Your task to perform on an android device: set the stopwatch Image 0: 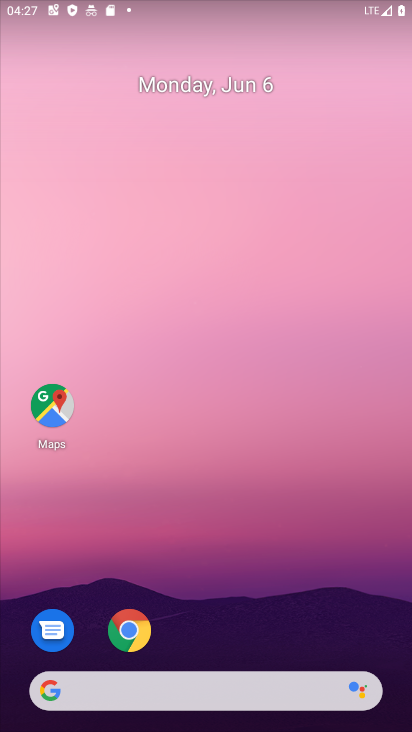
Step 0: drag from (296, 528) to (164, 118)
Your task to perform on an android device: set the stopwatch Image 1: 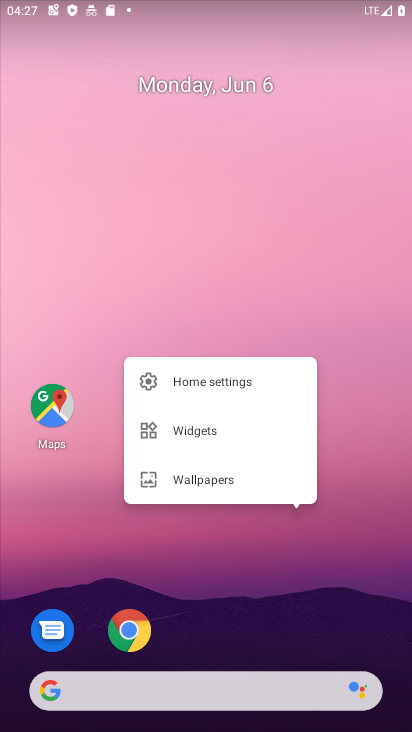
Step 1: click (204, 218)
Your task to perform on an android device: set the stopwatch Image 2: 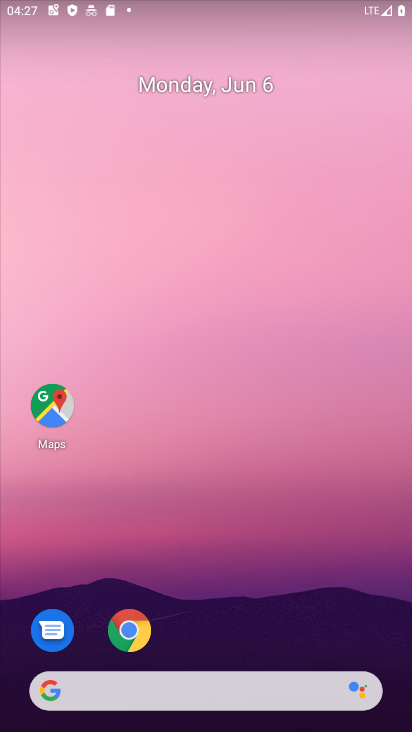
Step 2: drag from (305, 625) to (247, 89)
Your task to perform on an android device: set the stopwatch Image 3: 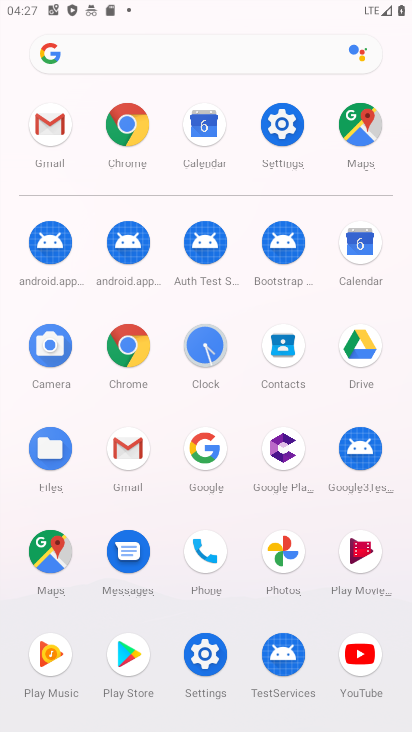
Step 3: click (213, 342)
Your task to perform on an android device: set the stopwatch Image 4: 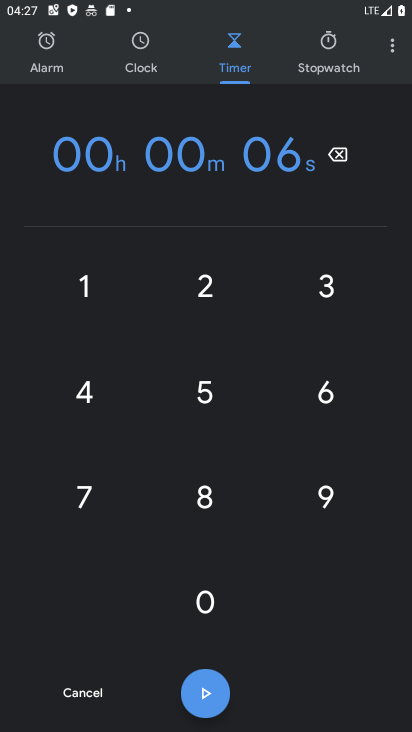
Step 4: click (339, 71)
Your task to perform on an android device: set the stopwatch Image 5: 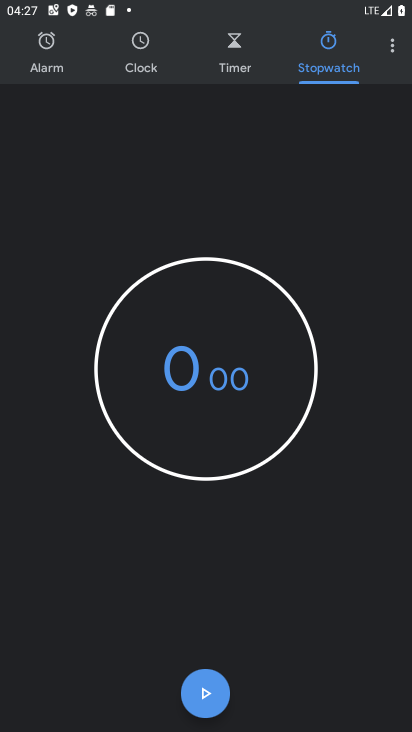
Step 5: click (208, 688)
Your task to perform on an android device: set the stopwatch Image 6: 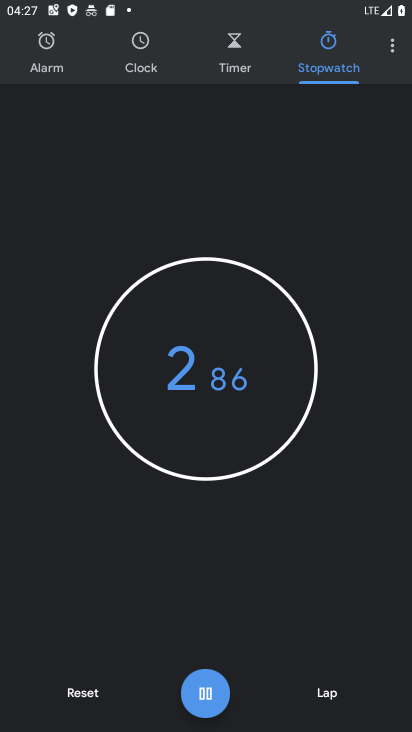
Step 6: task complete